Your task to perform on an android device: turn off wifi Image 0: 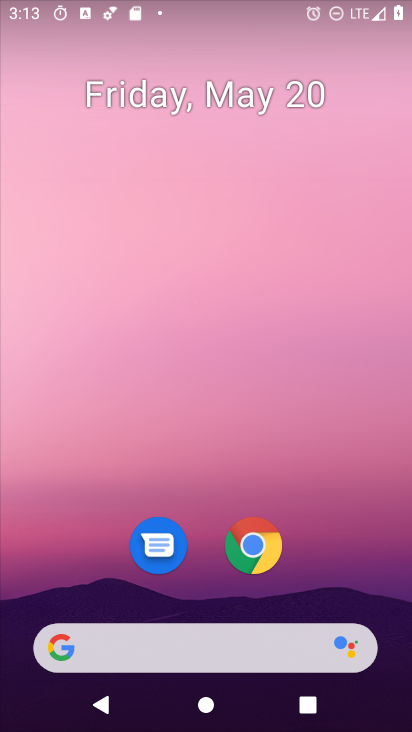
Step 0: click (354, 2)
Your task to perform on an android device: turn off wifi Image 1: 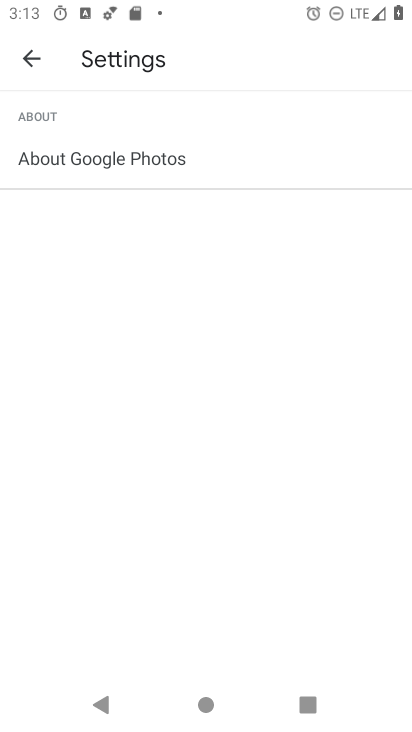
Step 1: press home button
Your task to perform on an android device: turn off wifi Image 2: 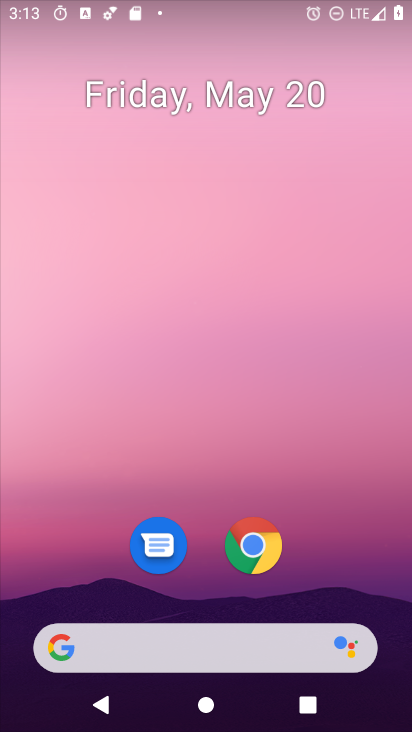
Step 2: drag from (311, 636) to (365, 25)
Your task to perform on an android device: turn off wifi Image 3: 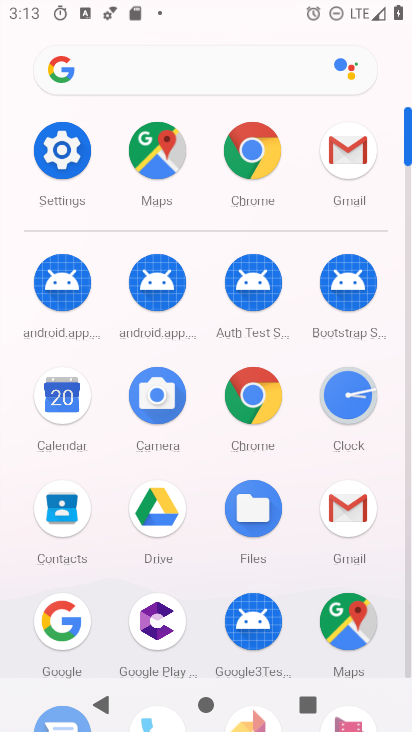
Step 3: click (75, 152)
Your task to perform on an android device: turn off wifi Image 4: 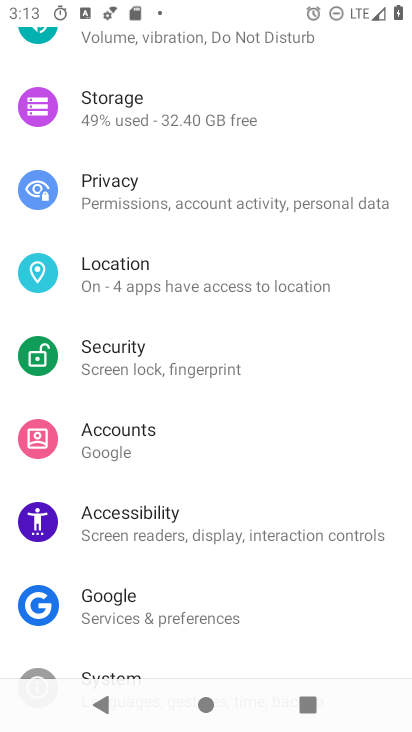
Step 4: drag from (318, 185) to (335, 640)
Your task to perform on an android device: turn off wifi Image 5: 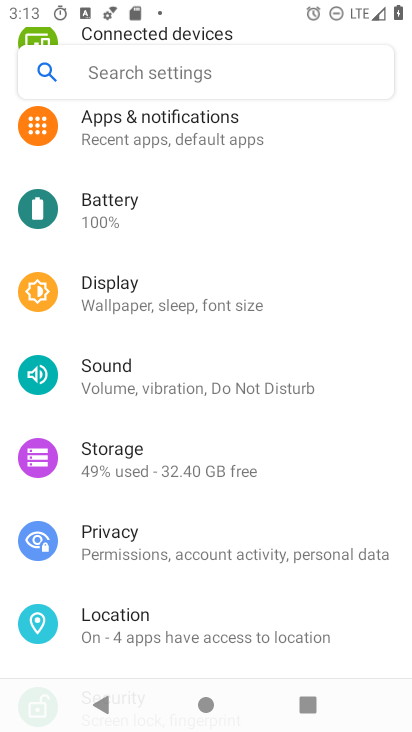
Step 5: drag from (310, 194) to (333, 658)
Your task to perform on an android device: turn off wifi Image 6: 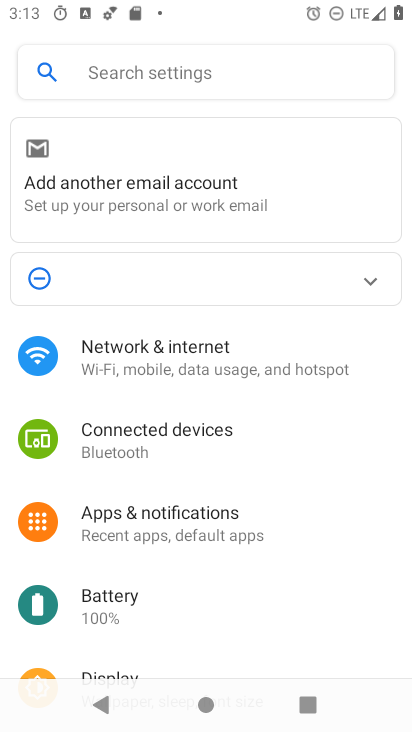
Step 6: click (209, 370)
Your task to perform on an android device: turn off wifi Image 7: 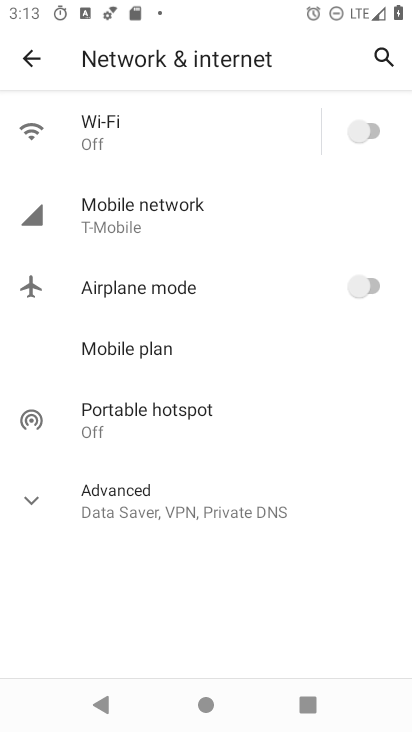
Step 7: task complete